Your task to perform on an android device: Open Google Chrome Image 0: 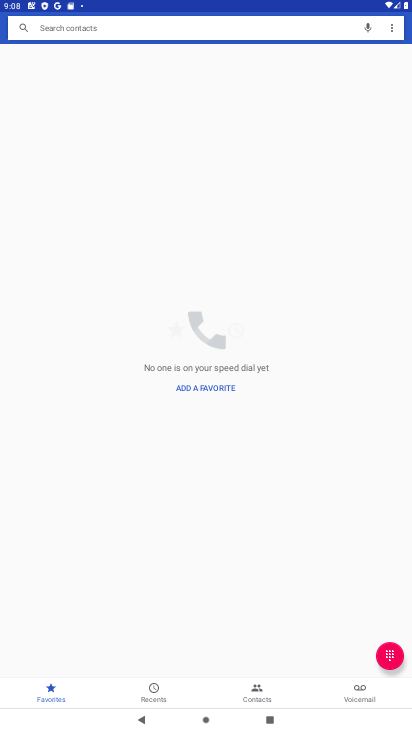
Step 0: press home button
Your task to perform on an android device: Open Google Chrome Image 1: 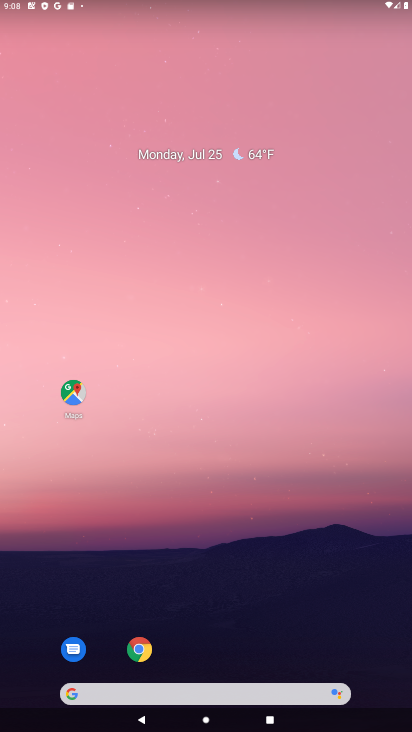
Step 1: click (135, 664)
Your task to perform on an android device: Open Google Chrome Image 2: 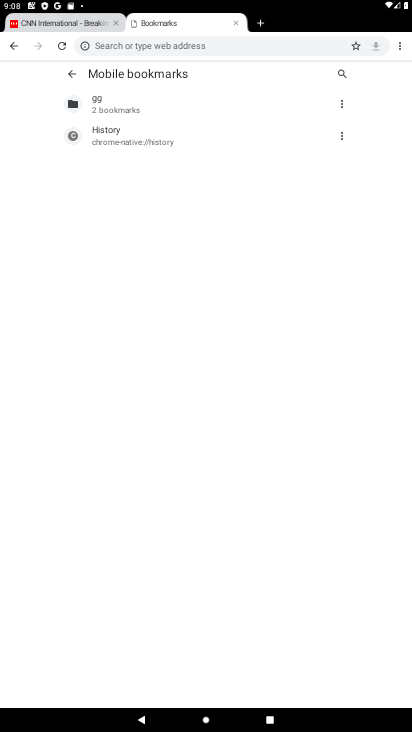
Step 2: task complete